Your task to perform on an android device: turn on the 12-hour format for clock Image 0: 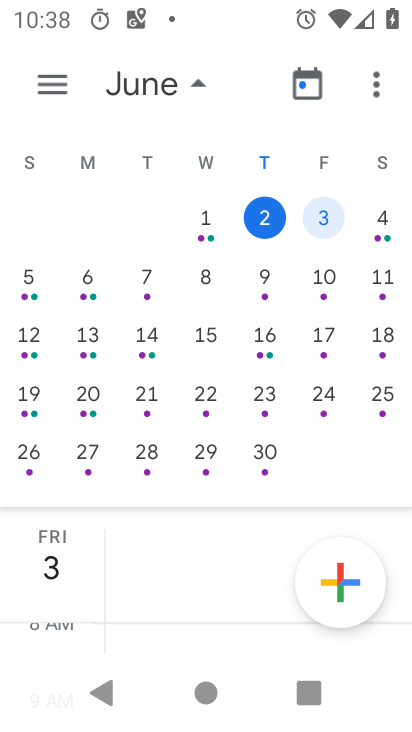
Step 0: press home button
Your task to perform on an android device: turn on the 12-hour format for clock Image 1: 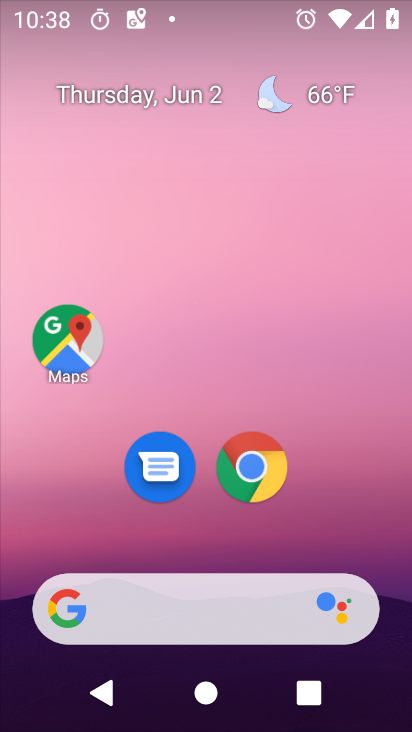
Step 1: drag from (58, 506) to (218, 195)
Your task to perform on an android device: turn on the 12-hour format for clock Image 2: 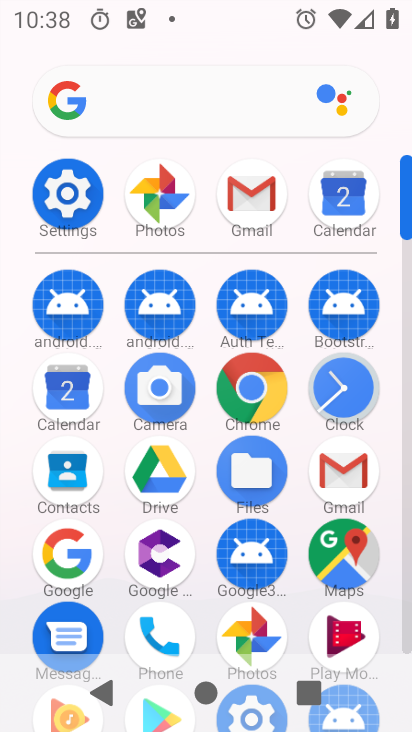
Step 2: click (360, 378)
Your task to perform on an android device: turn on the 12-hour format for clock Image 3: 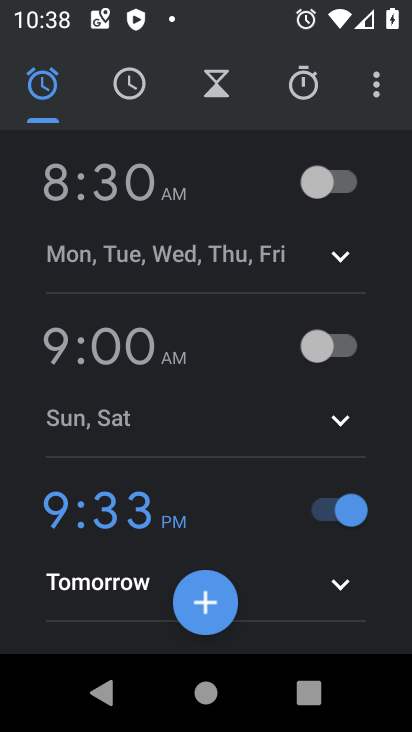
Step 3: click (373, 87)
Your task to perform on an android device: turn on the 12-hour format for clock Image 4: 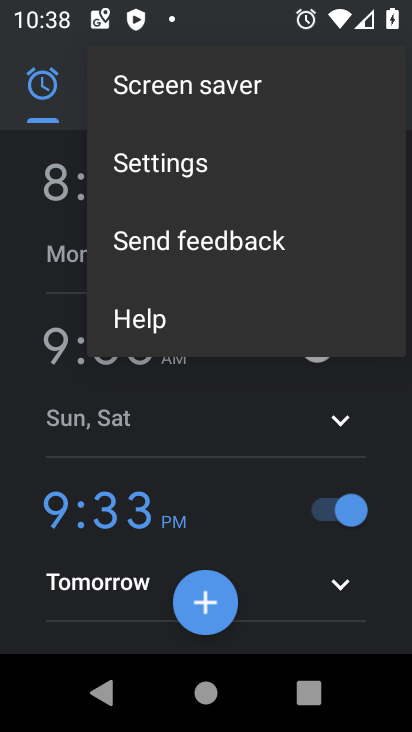
Step 4: click (143, 165)
Your task to perform on an android device: turn on the 12-hour format for clock Image 5: 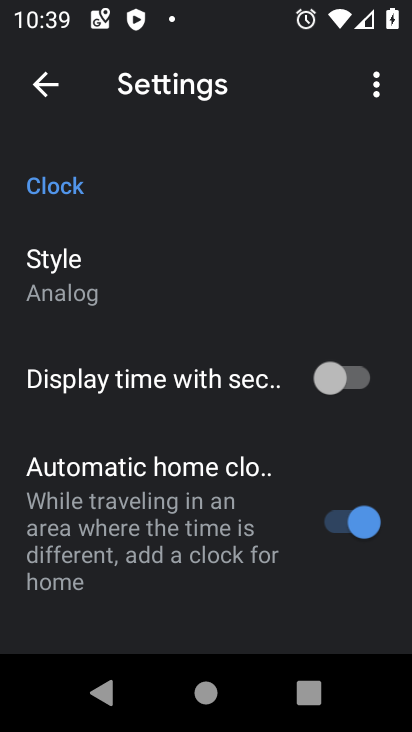
Step 5: drag from (10, 419) to (181, 111)
Your task to perform on an android device: turn on the 12-hour format for clock Image 6: 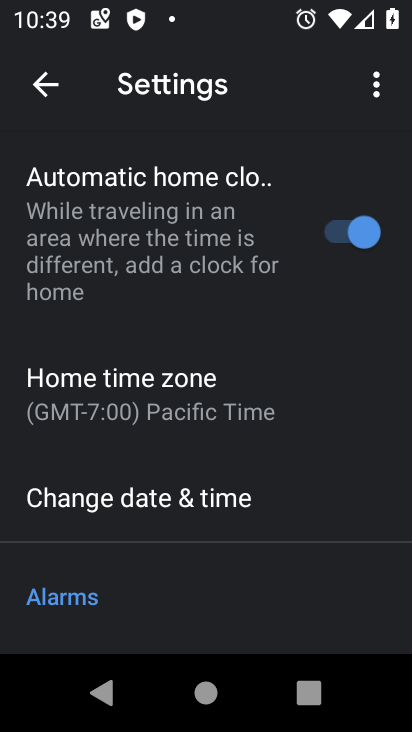
Step 6: click (70, 496)
Your task to perform on an android device: turn on the 12-hour format for clock Image 7: 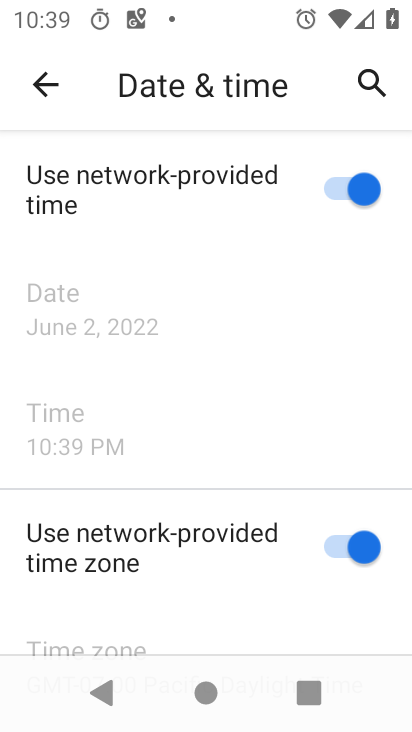
Step 7: task complete